Your task to perform on an android device: read, delete, or share a saved page in the chrome app Image 0: 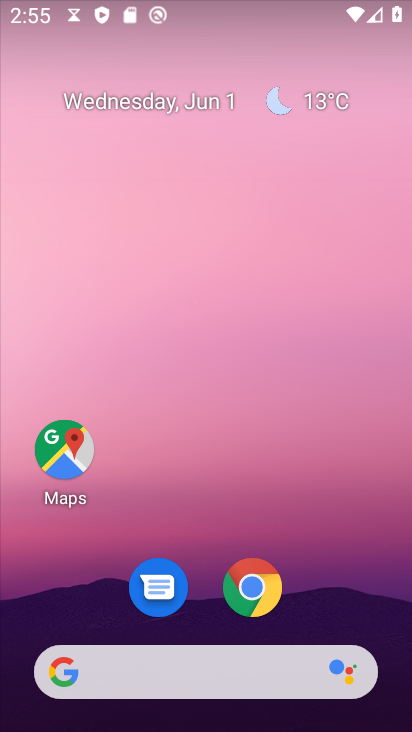
Step 0: click (172, 127)
Your task to perform on an android device: read, delete, or share a saved page in the chrome app Image 1: 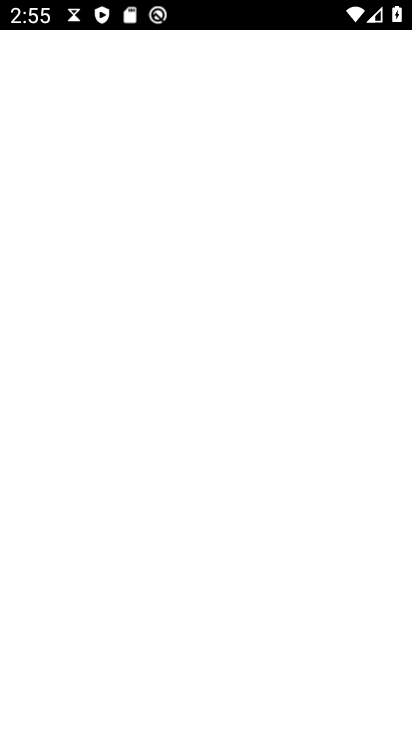
Step 1: drag from (257, 673) to (206, 150)
Your task to perform on an android device: read, delete, or share a saved page in the chrome app Image 2: 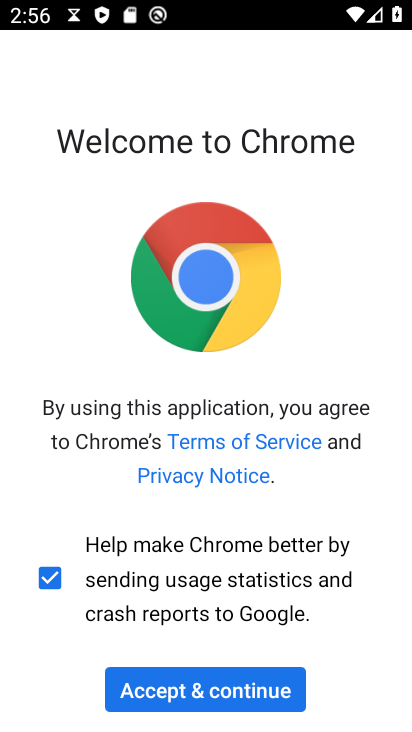
Step 2: press back button
Your task to perform on an android device: read, delete, or share a saved page in the chrome app Image 3: 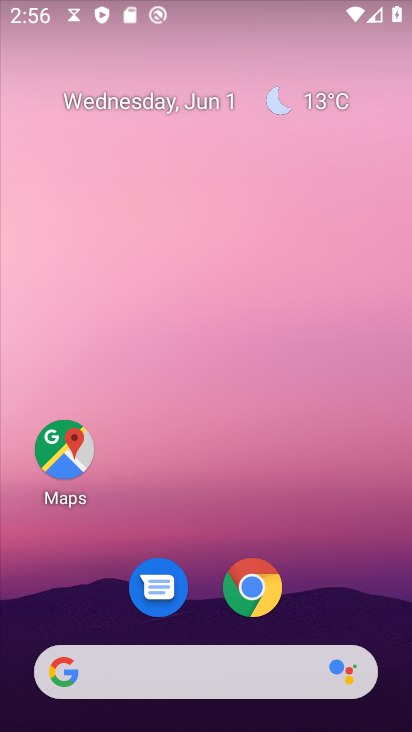
Step 3: drag from (250, 692) to (158, 132)
Your task to perform on an android device: read, delete, or share a saved page in the chrome app Image 4: 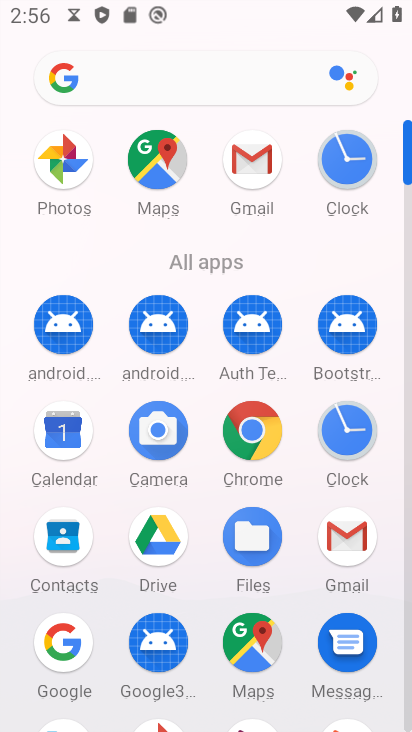
Step 4: click (250, 428)
Your task to perform on an android device: read, delete, or share a saved page in the chrome app Image 5: 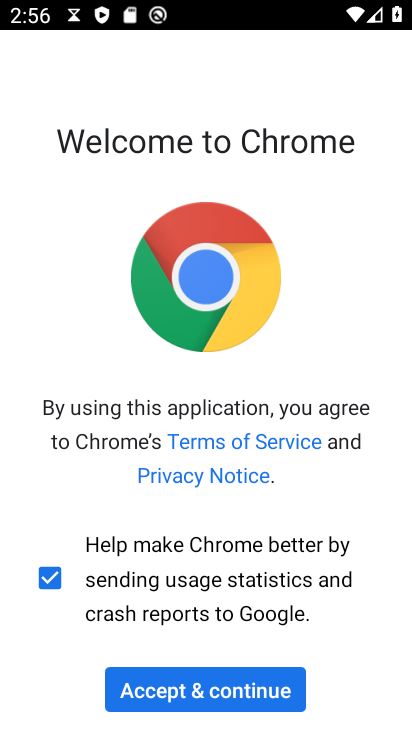
Step 5: click (213, 685)
Your task to perform on an android device: read, delete, or share a saved page in the chrome app Image 6: 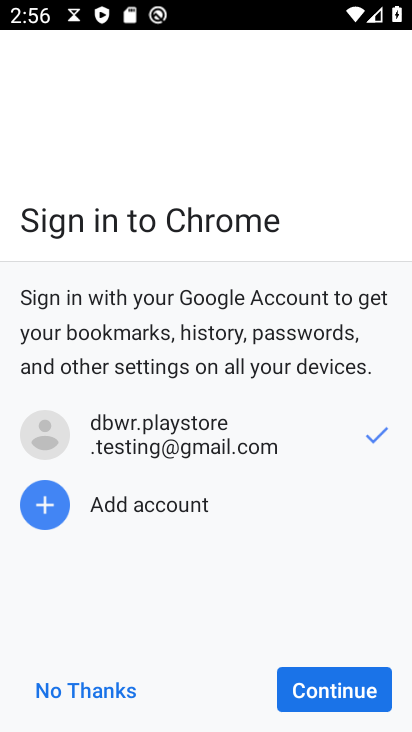
Step 6: click (334, 697)
Your task to perform on an android device: read, delete, or share a saved page in the chrome app Image 7: 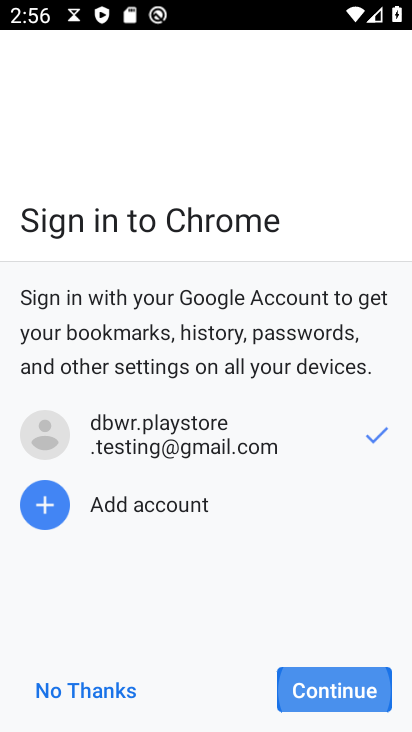
Step 7: click (334, 695)
Your task to perform on an android device: read, delete, or share a saved page in the chrome app Image 8: 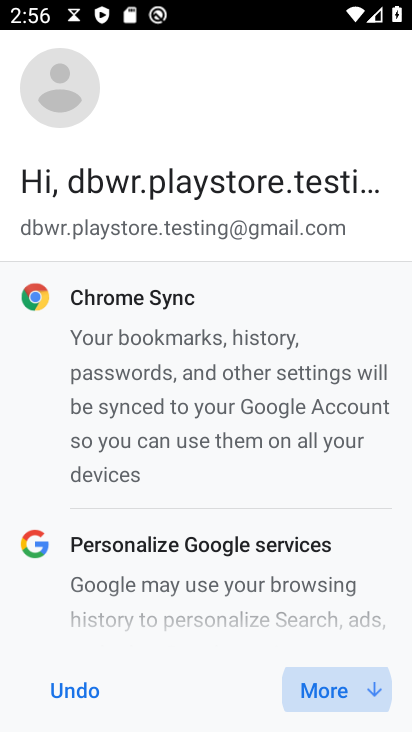
Step 8: click (337, 697)
Your task to perform on an android device: read, delete, or share a saved page in the chrome app Image 9: 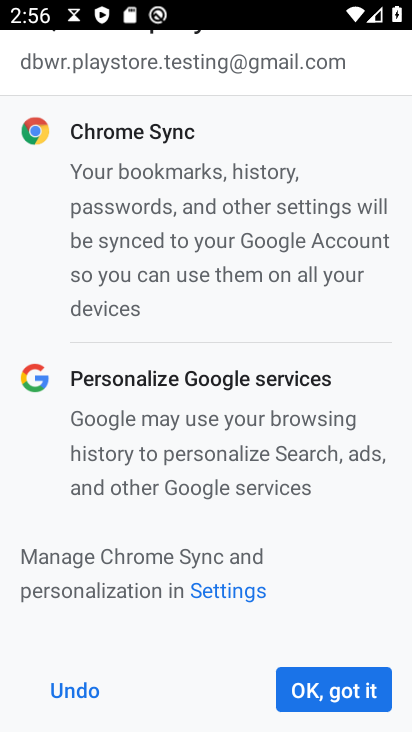
Step 9: click (337, 698)
Your task to perform on an android device: read, delete, or share a saved page in the chrome app Image 10: 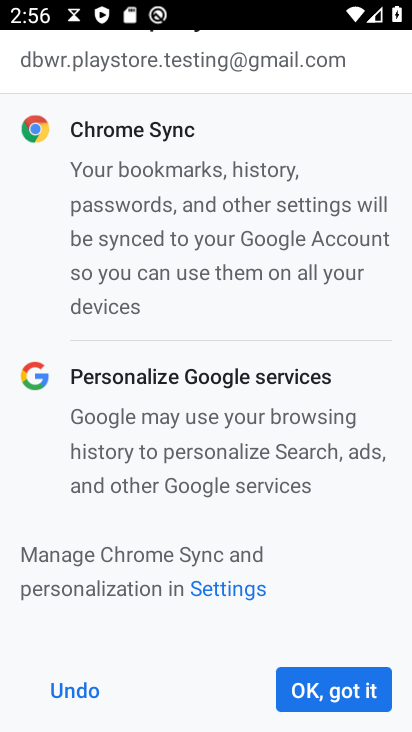
Step 10: click (337, 698)
Your task to perform on an android device: read, delete, or share a saved page in the chrome app Image 11: 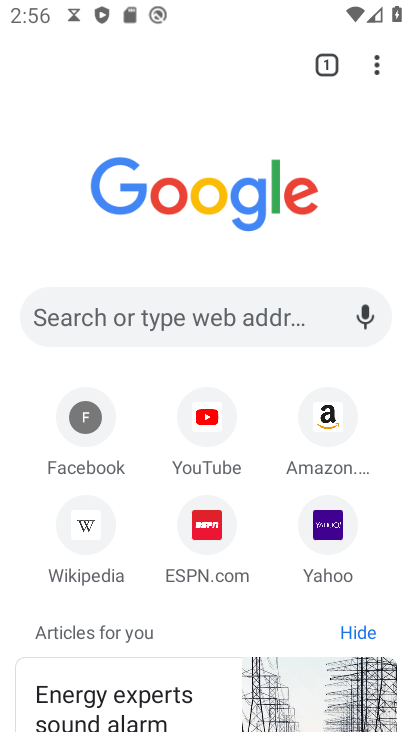
Step 11: drag from (377, 70) to (149, 439)
Your task to perform on an android device: read, delete, or share a saved page in the chrome app Image 12: 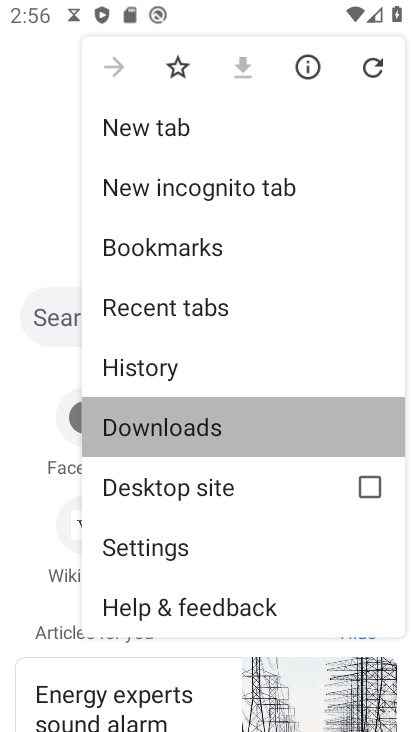
Step 12: click (148, 440)
Your task to perform on an android device: read, delete, or share a saved page in the chrome app Image 13: 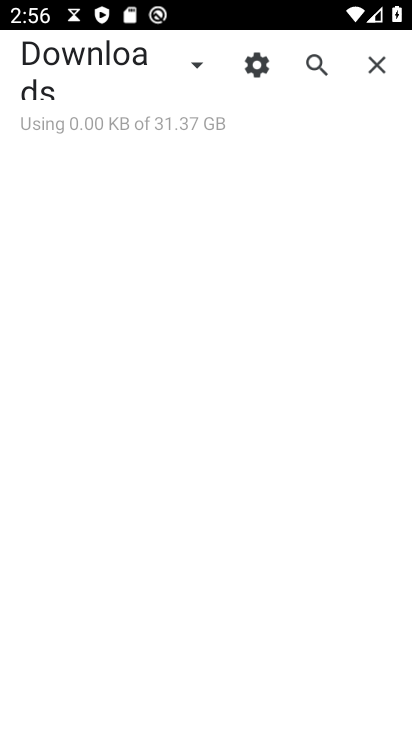
Step 13: click (148, 439)
Your task to perform on an android device: read, delete, or share a saved page in the chrome app Image 14: 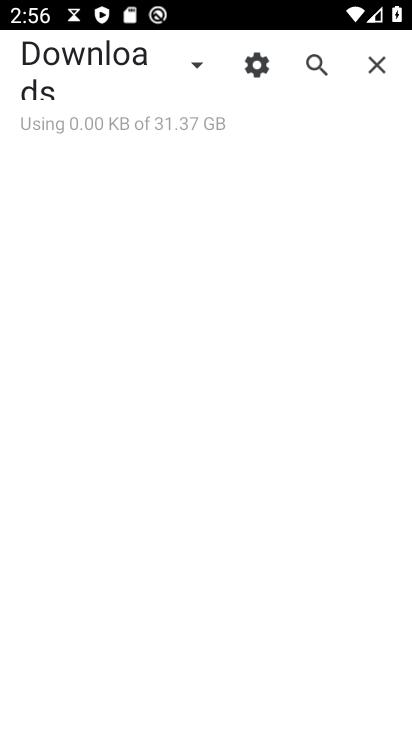
Step 14: click (149, 438)
Your task to perform on an android device: read, delete, or share a saved page in the chrome app Image 15: 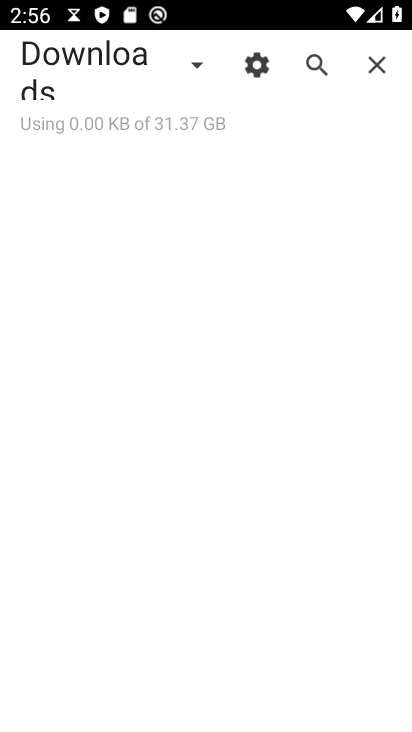
Step 15: task complete